Your task to perform on an android device: Open network settings Image 0: 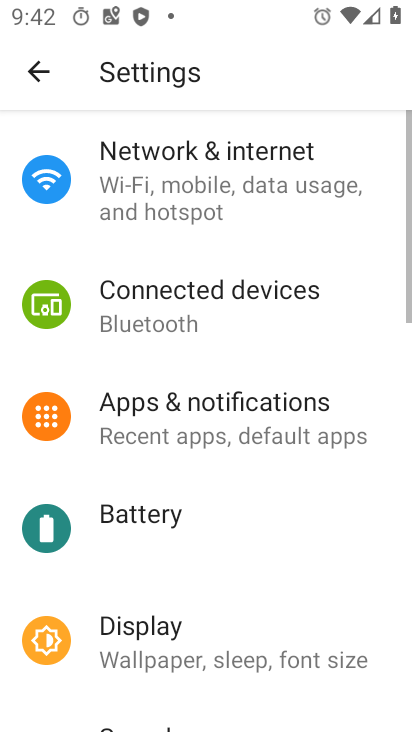
Step 0: drag from (341, 642) to (177, 185)
Your task to perform on an android device: Open network settings Image 1: 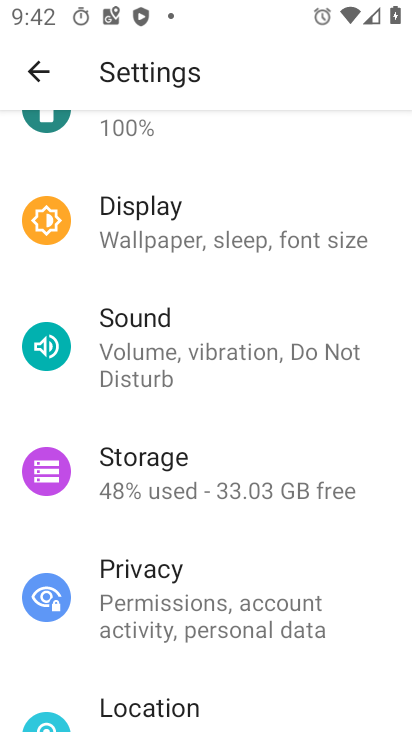
Step 1: drag from (208, 239) to (251, 581)
Your task to perform on an android device: Open network settings Image 2: 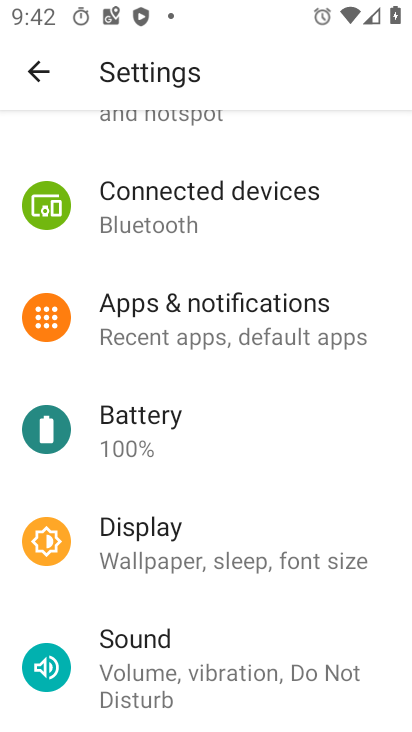
Step 2: drag from (182, 211) to (245, 627)
Your task to perform on an android device: Open network settings Image 3: 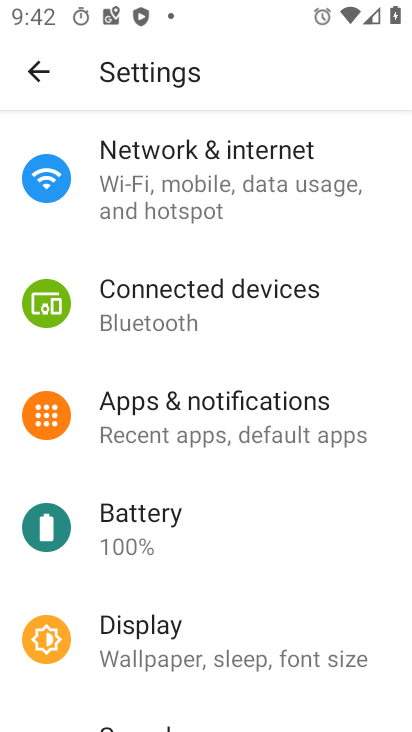
Step 3: click (256, 165)
Your task to perform on an android device: Open network settings Image 4: 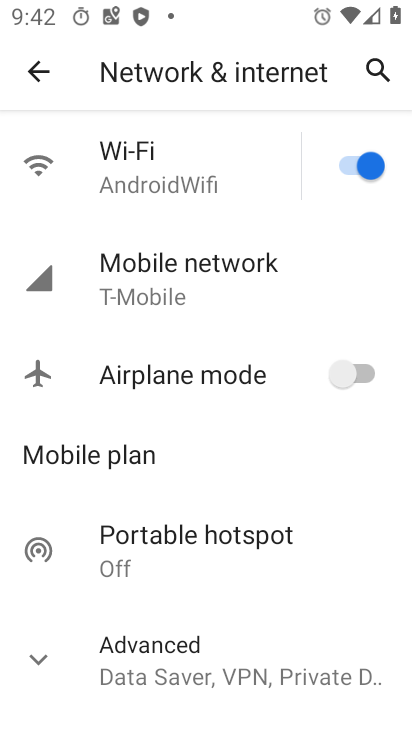
Step 4: click (145, 265)
Your task to perform on an android device: Open network settings Image 5: 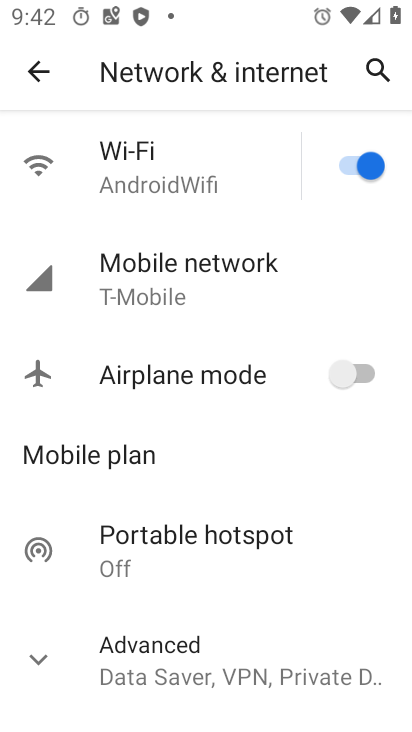
Step 5: click (150, 267)
Your task to perform on an android device: Open network settings Image 6: 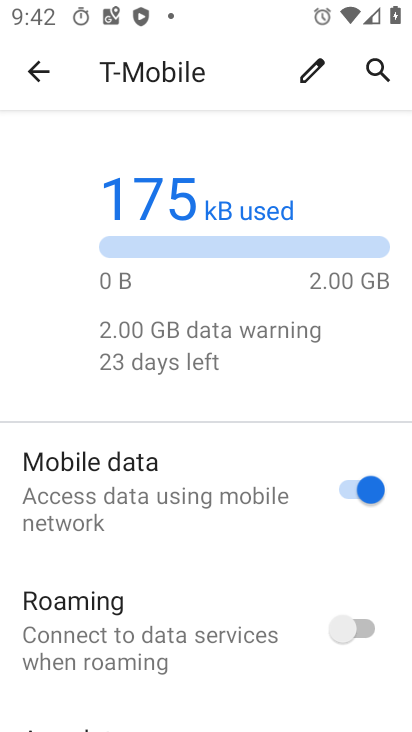
Step 6: task complete